Your task to perform on an android device: uninstall "Microsoft Excel" Image 0: 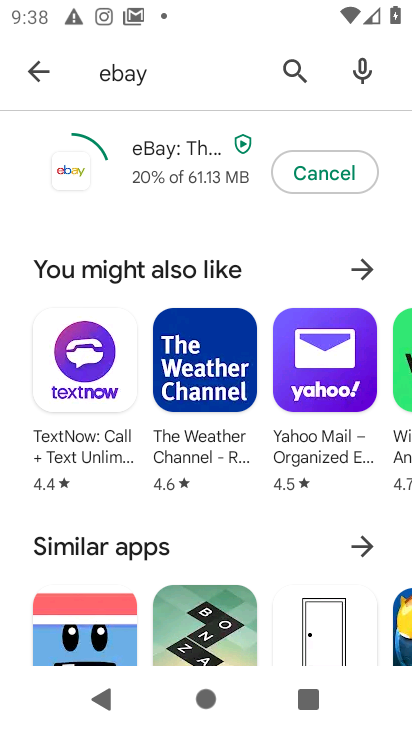
Step 0: click (178, 566)
Your task to perform on an android device: uninstall "Microsoft Excel" Image 1: 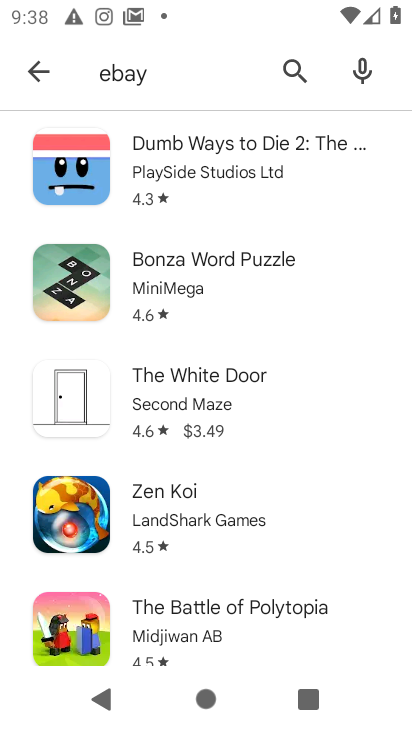
Step 1: press home button
Your task to perform on an android device: uninstall "Microsoft Excel" Image 2: 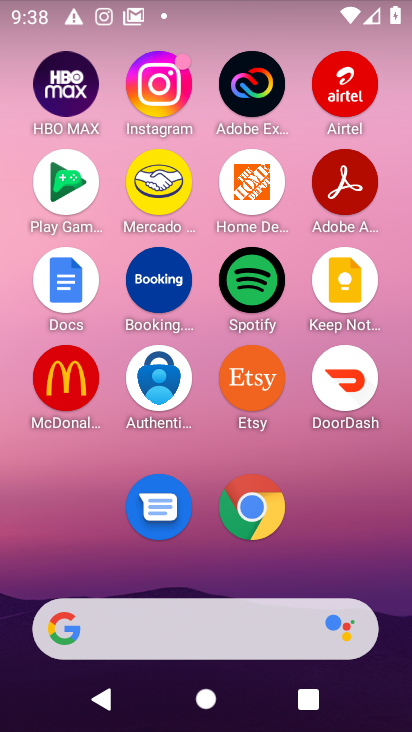
Step 2: drag from (189, 577) to (241, 53)
Your task to perform on an android device: uninstall "Microsoft Excel" Image 3: 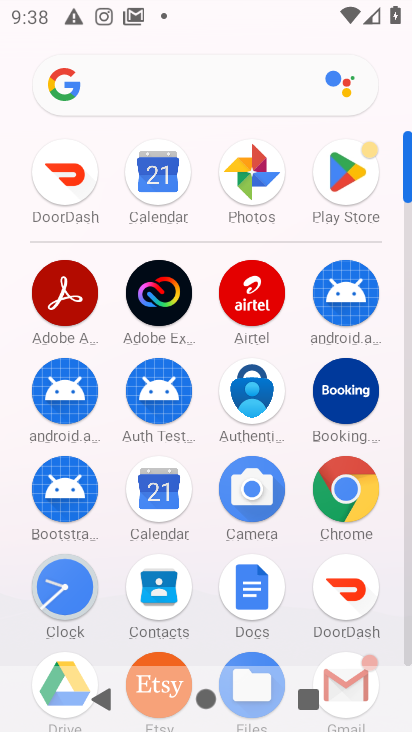
Step 3: click (361, 177)
Your task to perform on an android device: uninstall "Microsoft Excel" Image 4: 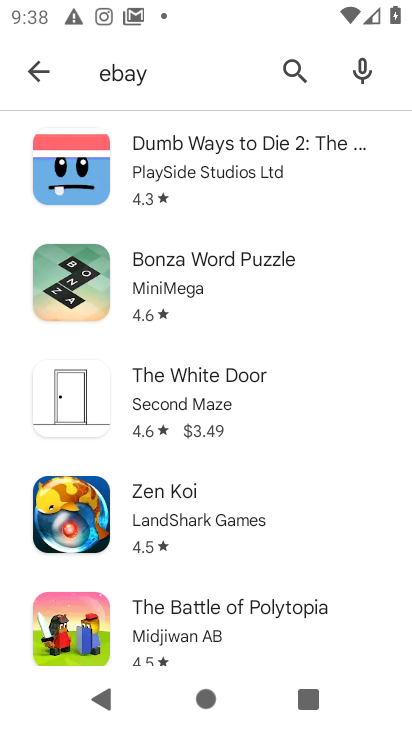
Step 4: click (25, 74)
Your task to perform on an android device: uninstall "Microsoft Excel" Image 5: 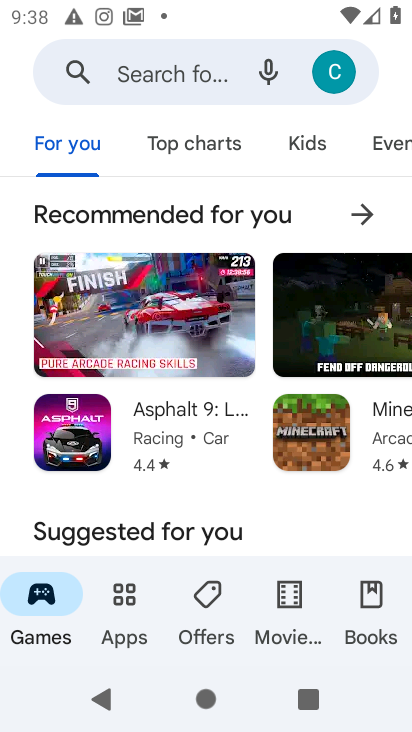
Step 5: click (182, 79)
Your task to perform on an android device: uninstall "Microsoft Excel" Image 6: 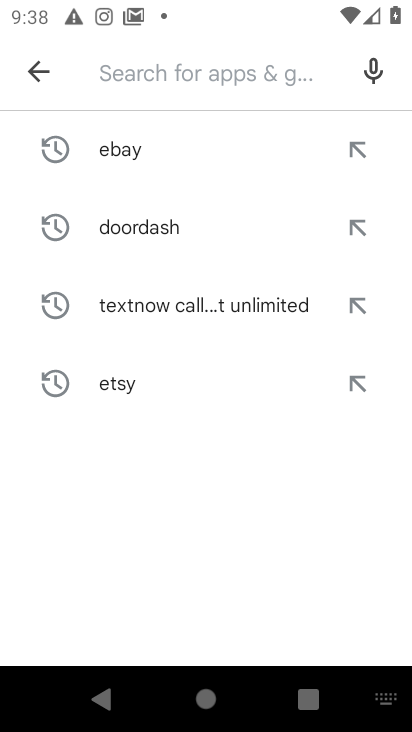
Step 6: type "Microsoft Excel"
Your task to perform on an android device: uninstall "Microsoft Excel" Image 7: 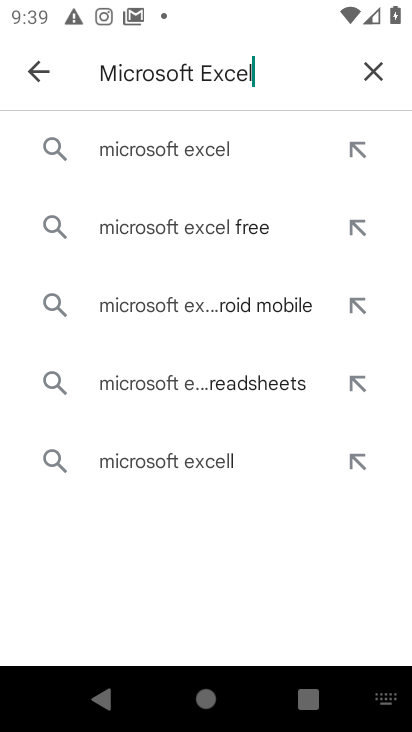
Step 7: click (199, 149)
Your task to perform on an android device: uninstall "Microsoft Excel" Image 8: 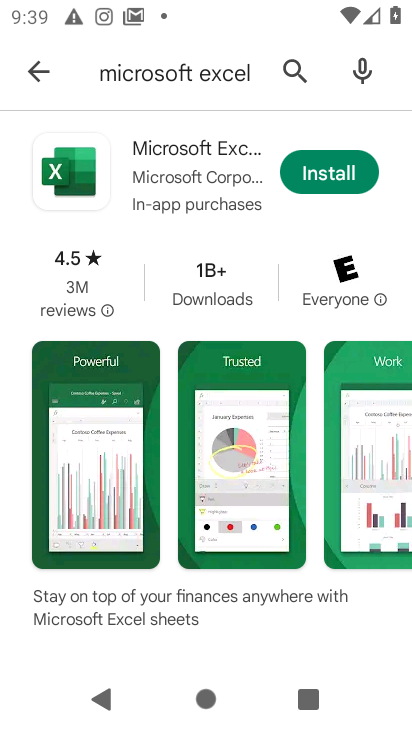
Step 8: task complete